Your task to perform on an android device: open app "Spotify" (install if not already installed), go to login, and select forgot password Image 0: 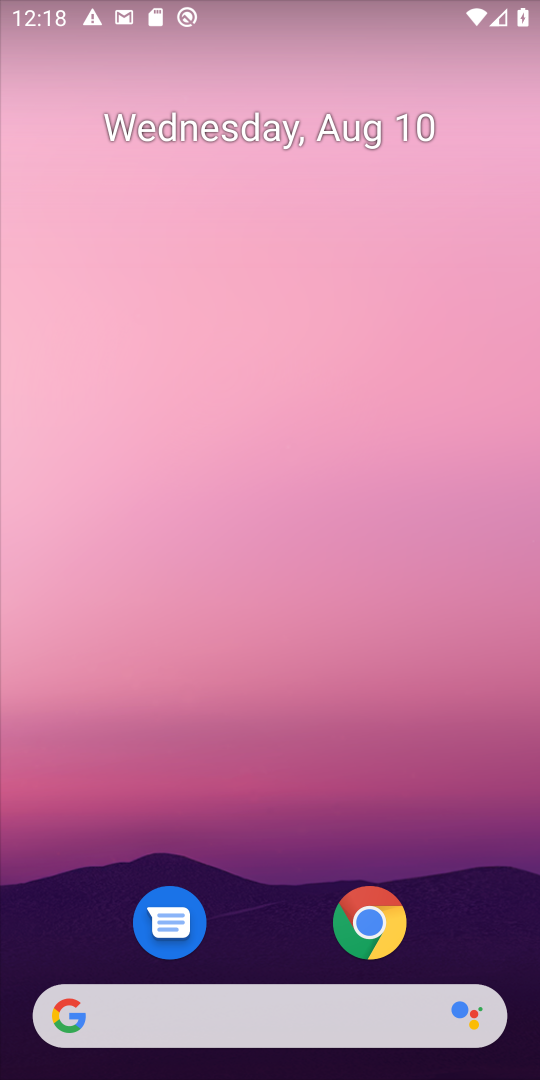
Step 0: drag from (257, 381) to (249, 95)
Your task to perform on an android device: open app "Spotify" (install if not already installed), go to login, and select forgot password Image 1: 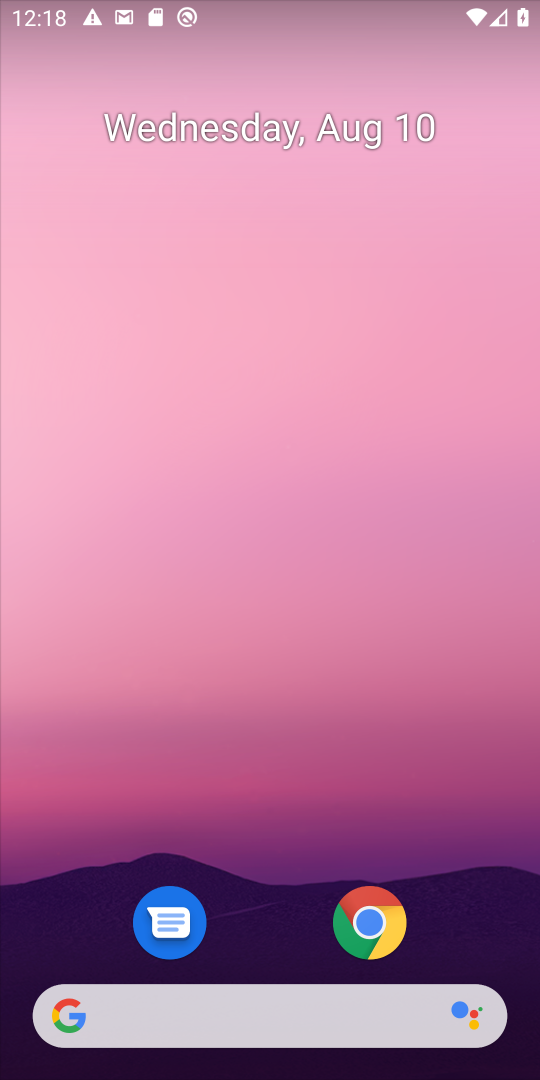
Step 1: drag from (278, 297) to (283, 0)
Your task to perform on an android device: open app "Spotify" (install if not already installed), go to login, and select forgot password Image 2: 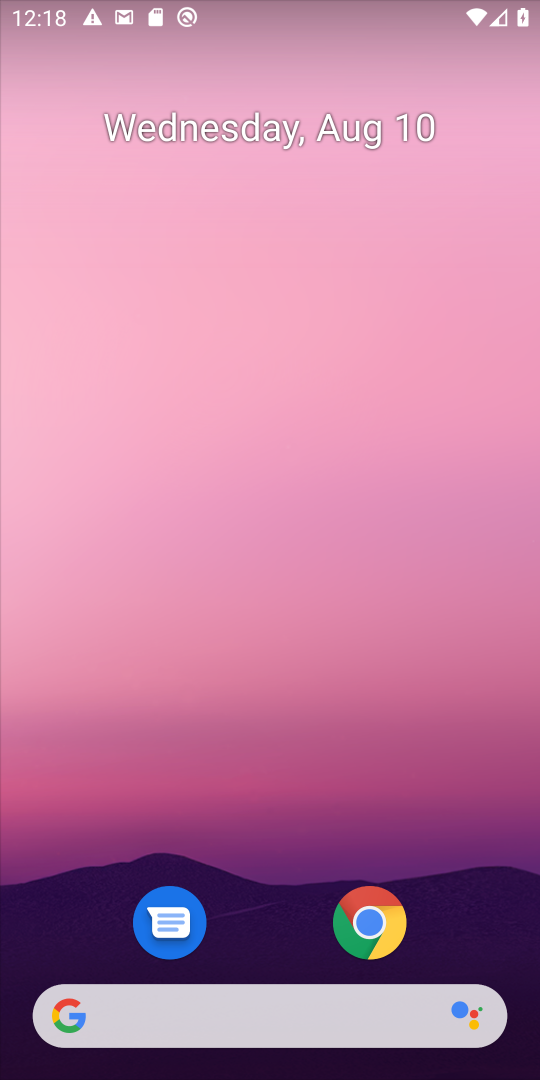
Step 2: drag from (262, 865) to (292, 14)
Your task to perform on an android device: open app "Spotify" (install if not already installed), go to login, and select forgot password Image 3: 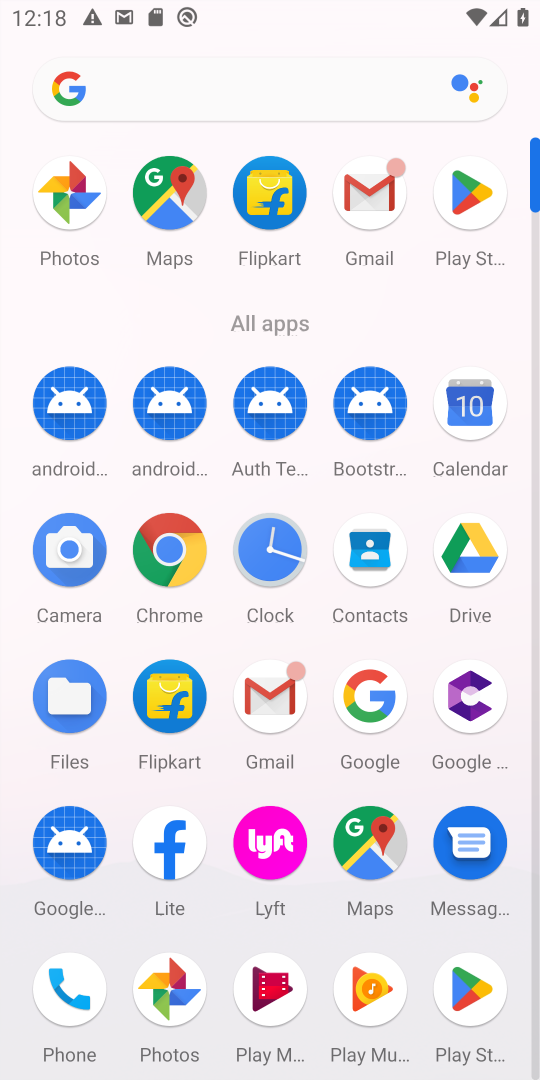
Step 3: click (466, 208)
Your task to perform on an android device: open app "Spotify" (install if not already installed), go to login, and select forgot password Image 4: 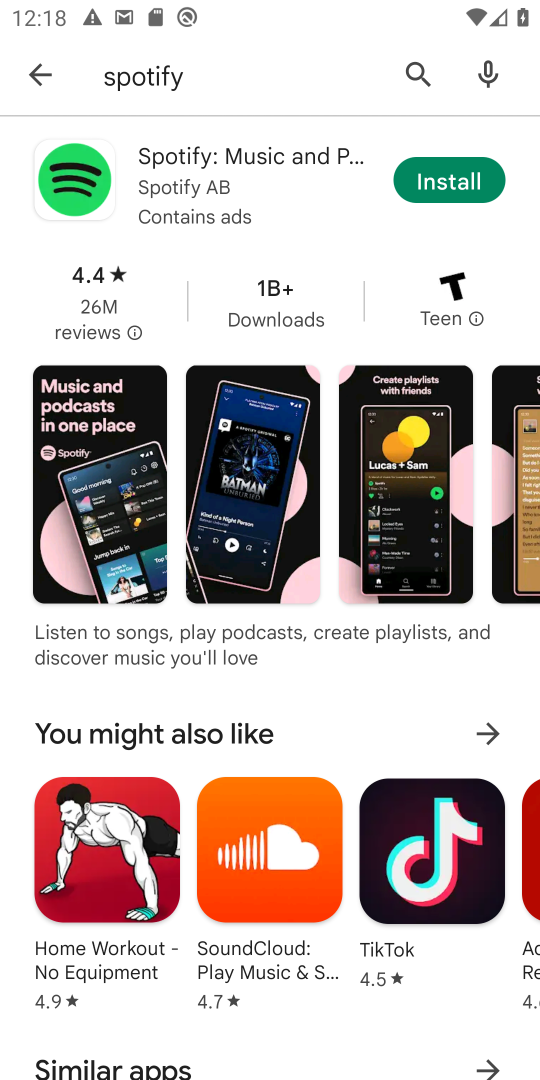
Step 4: click (31, 71)
Your task to perform on an android device: open app "Spotify" (install if not already installed), go to login, and select forgot password Image 5: 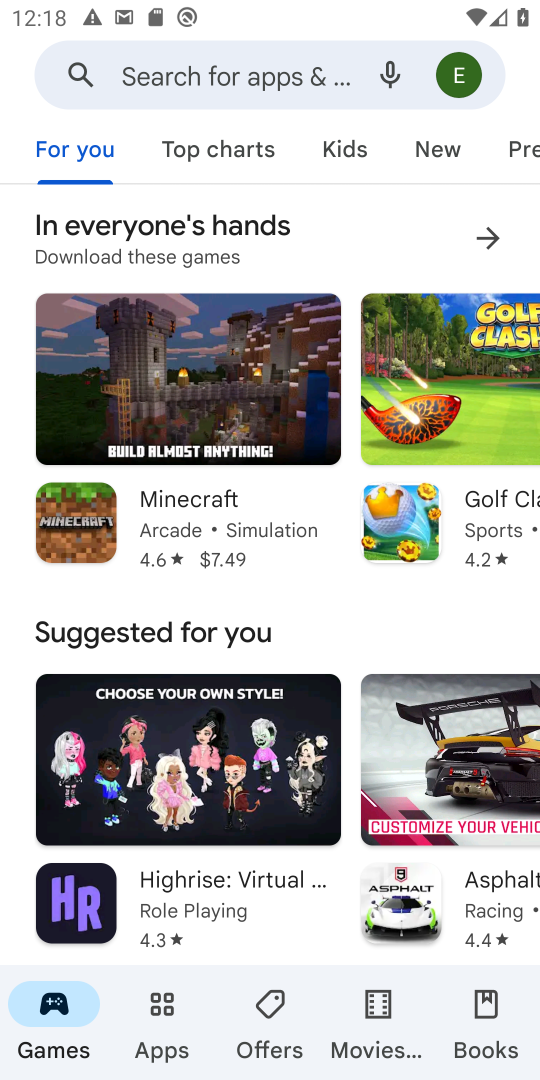
Step 5: click (157, 71)
Your task to perform on an android device: open app "Spotify" (install if not already installed), go to login, and select forgot password Image 6: 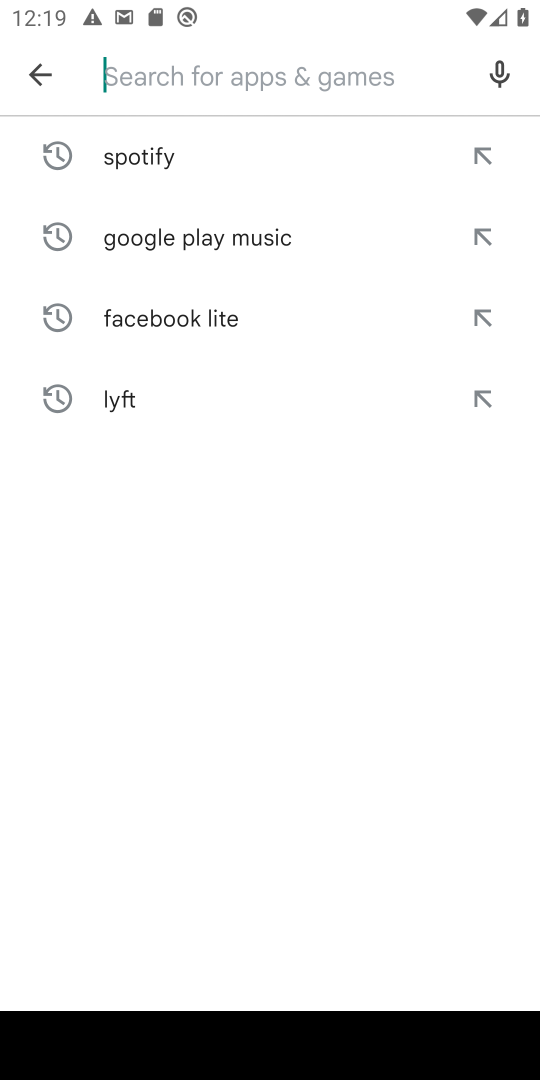
Step 6: type "Spotify"
Your task to perform on an android device: open app "Spotify" (install if not already installed), go to login, and select forgot password Image 7: 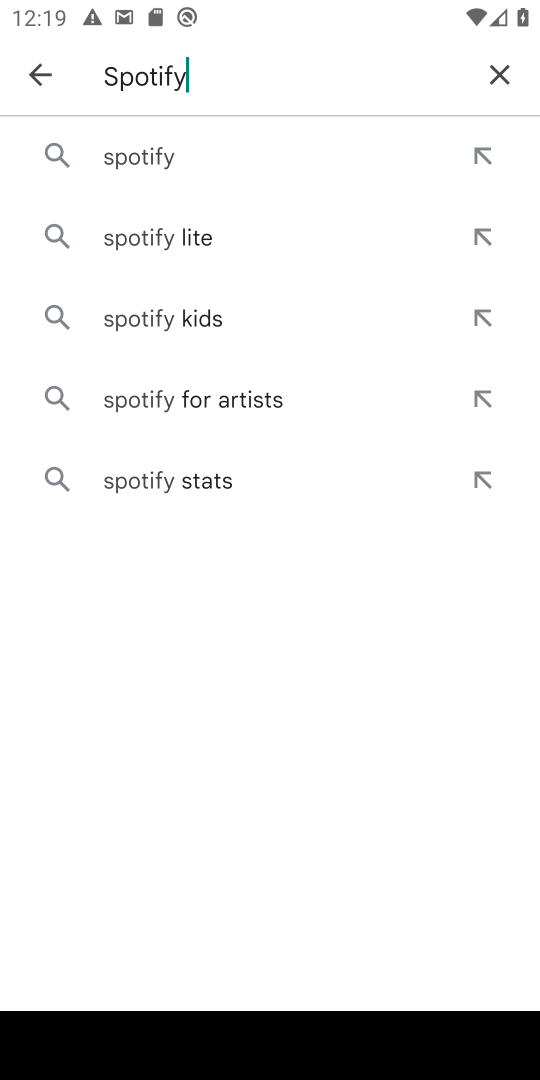
Step 7: click (151, 143)
Your task to perform on an android device: open app "Spotify" (install if not already installed), go to login, and select forgot password Image 8: 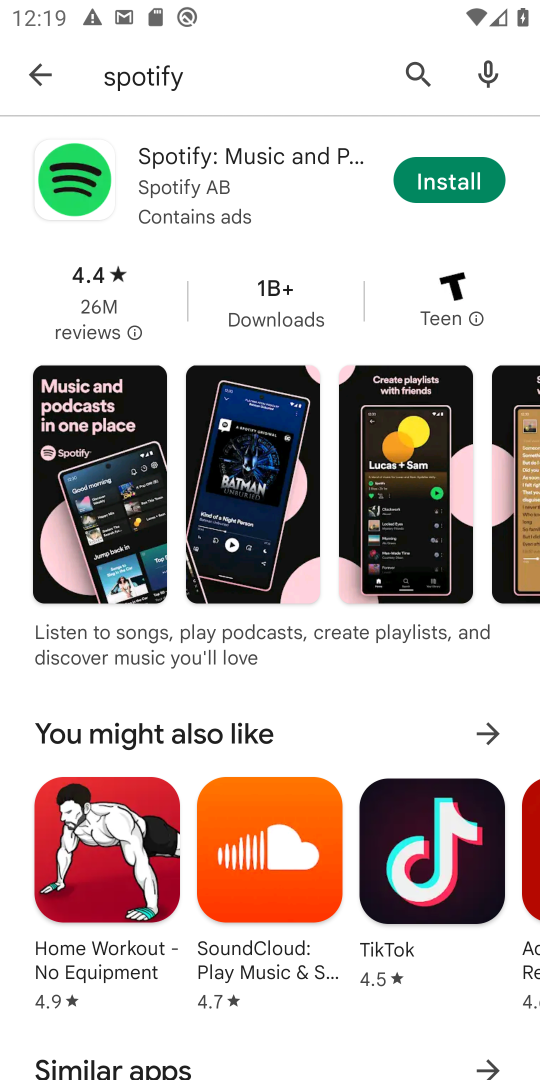
Step 8: click (449, 193)
Your task to perform on an android device: open app "Spotify" (install if not already installed), go to login, and select forgot password Image 9: 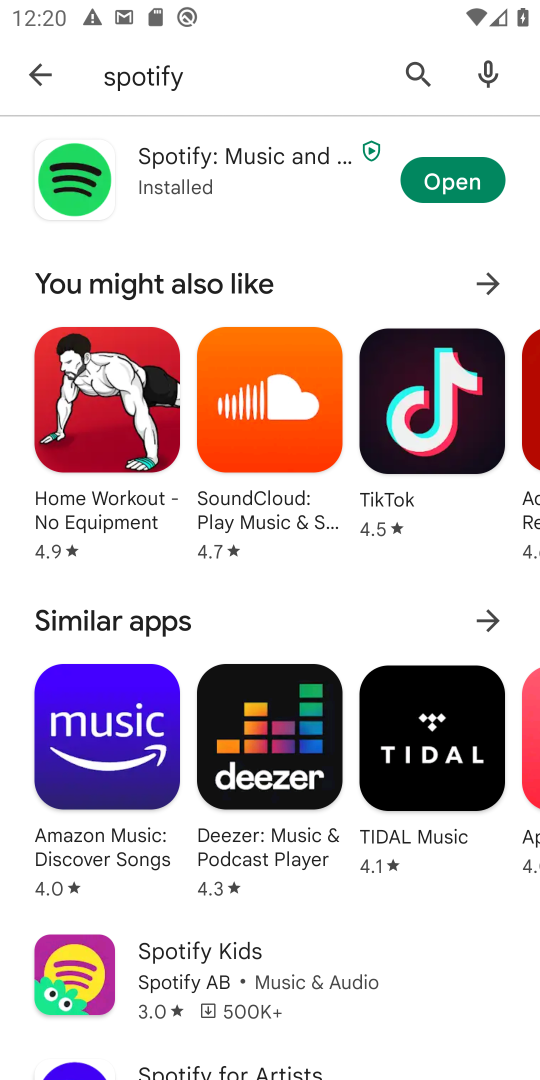
Step 9: click (461, 190)
Your task to perform on an android device: open app "Spotify" (install if not already installed), go to login, and select forgot password Image 10: 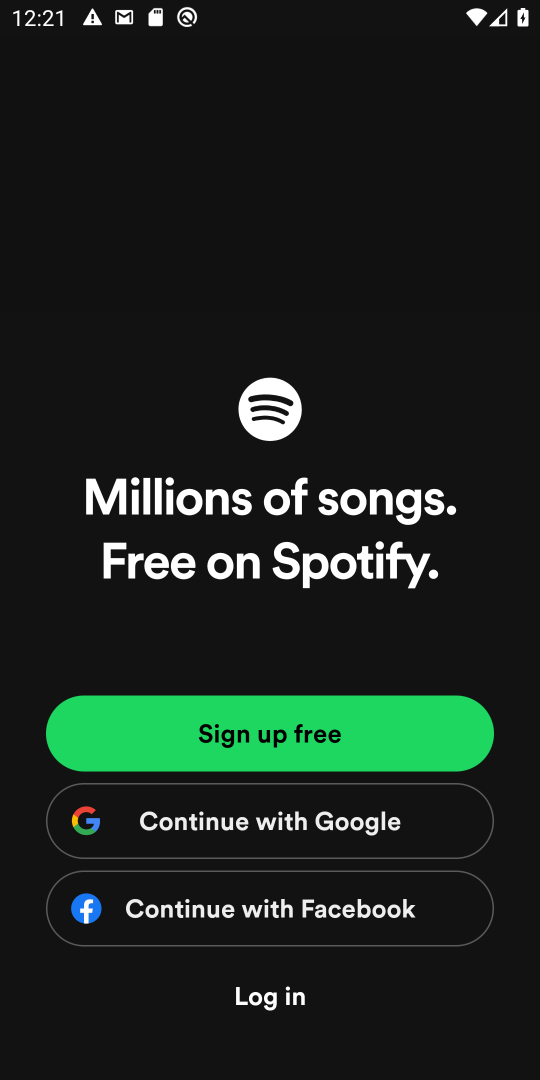
Step 10: click (265, 1008)
Your task to perform on an android device: open app "Spotify" (install if not already installed), go to login, and select forgot password Image 11: 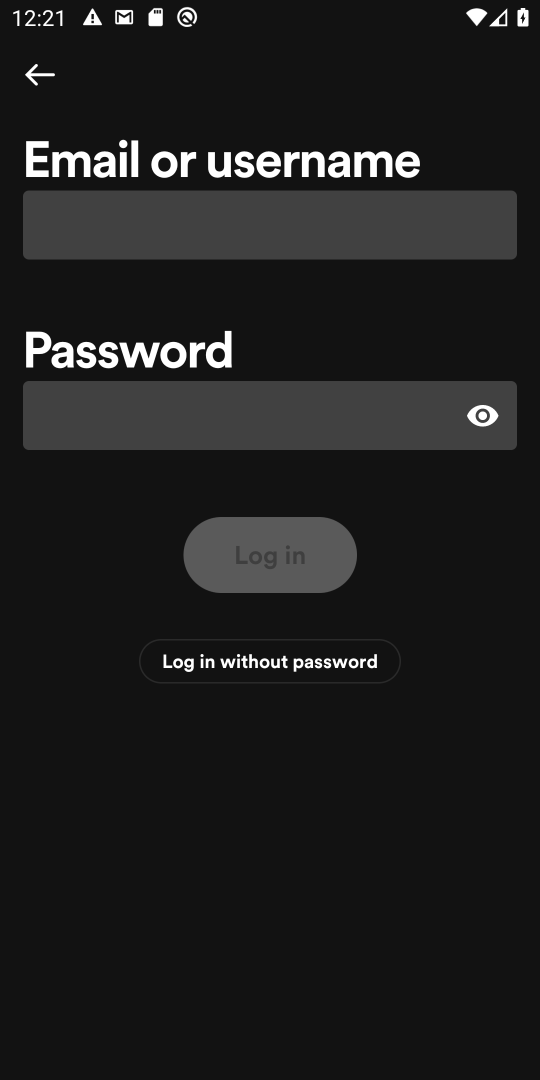
Step 11: task complete